Your task to perform on an android device: What is the recent news? Image 0: 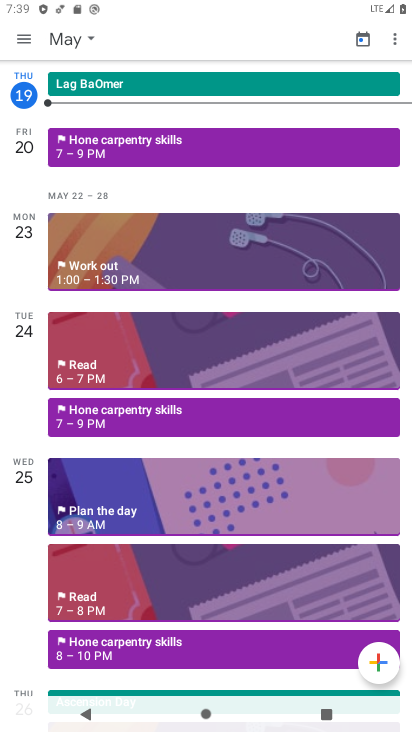
Step 0: click (401, 704)
Your task to perform on an android device: What is the recent news? Image 1: 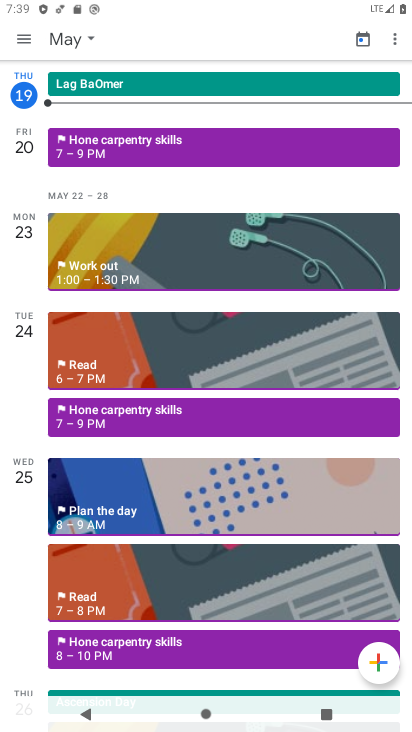
Step 1: task complete